Your task to perform on an android device: Add "asus rog" to the cart on bestbuy.com, then select checkout. Image 0: 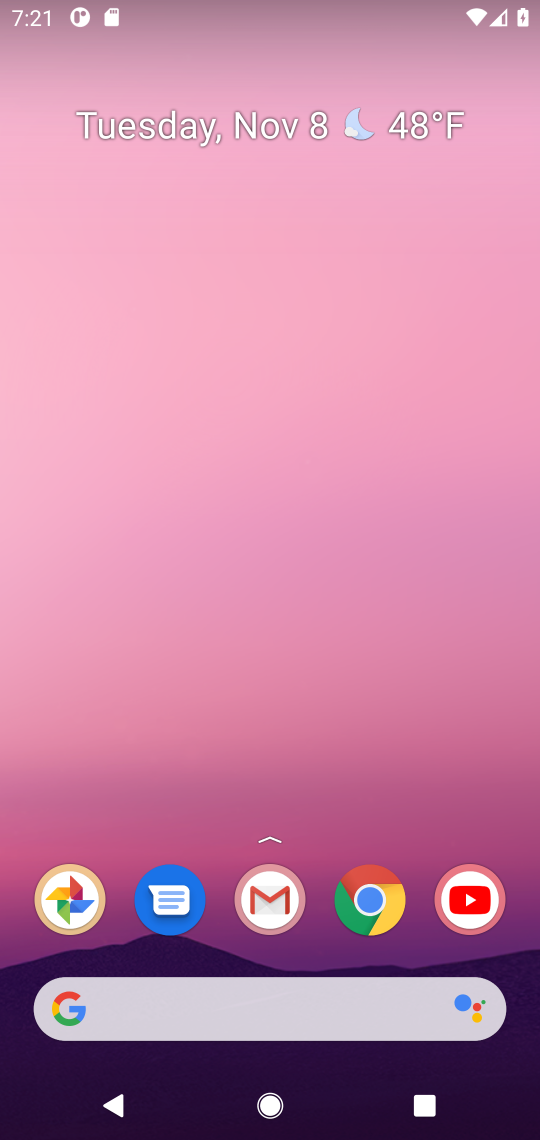
Step 0: drag from (221, 991) to (229, 286)
Your task to perform on an android device: Add "asus rog" to the cart on bestbuy.com, then select checkout. Image 1: 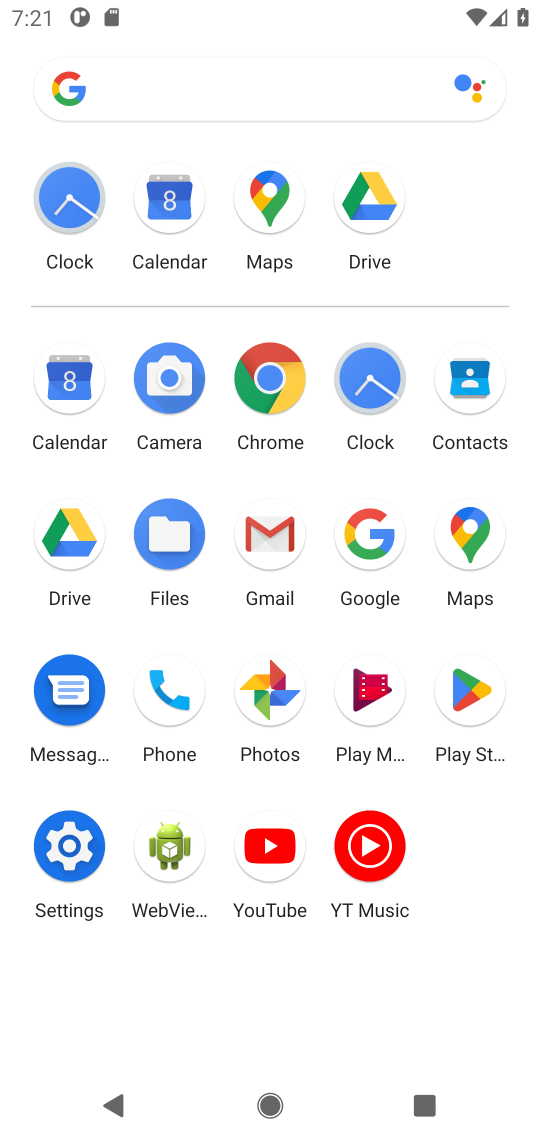
Step 1: click (360, 509)
Your task to perform on an android device: Add "asus rog" to the cart on bestbuy.com, then select checkout. Image 2: 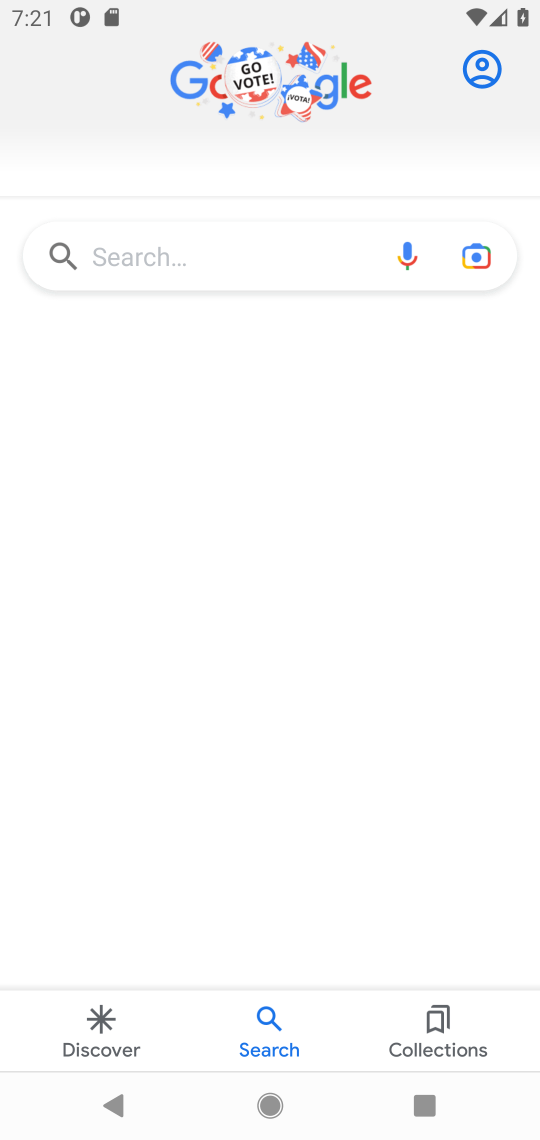
Step 2: click (182, 250)
Your task to perform on an android device: Add "asus rog" to the cart on bestbuy.com, then select checkout. Image 3: 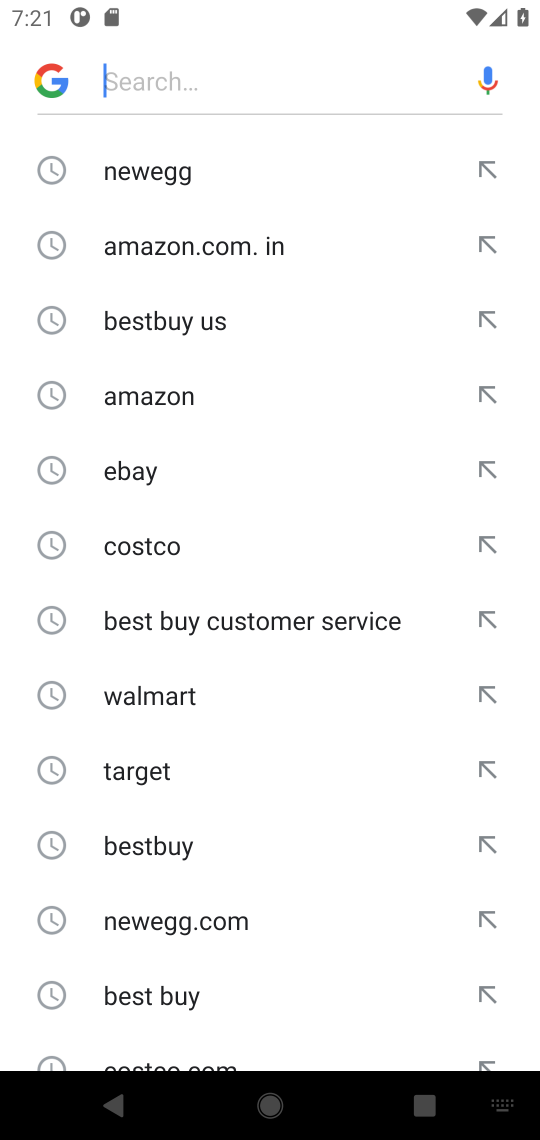
Step 3: type "bestbuy "
Your task to perform on an android device: Add "asus rog" to the cart on bestbuy.com, then select checkout. Image 4: 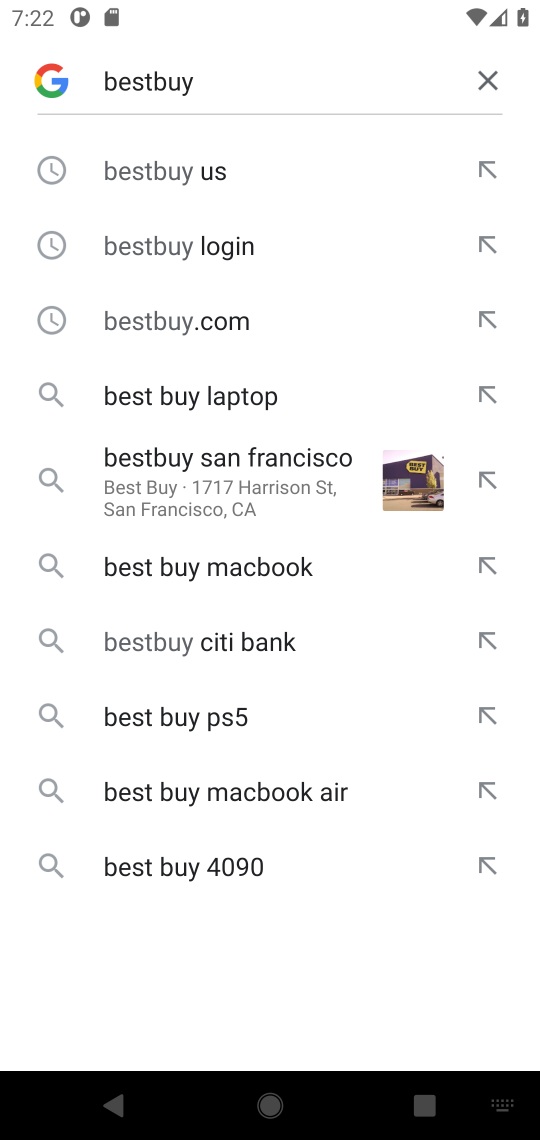
Step 4: click (86, 168)
Your task to perform on an android device: Add "asus rog" to the cart on bestbuy.com, then select checkout. Image 5: 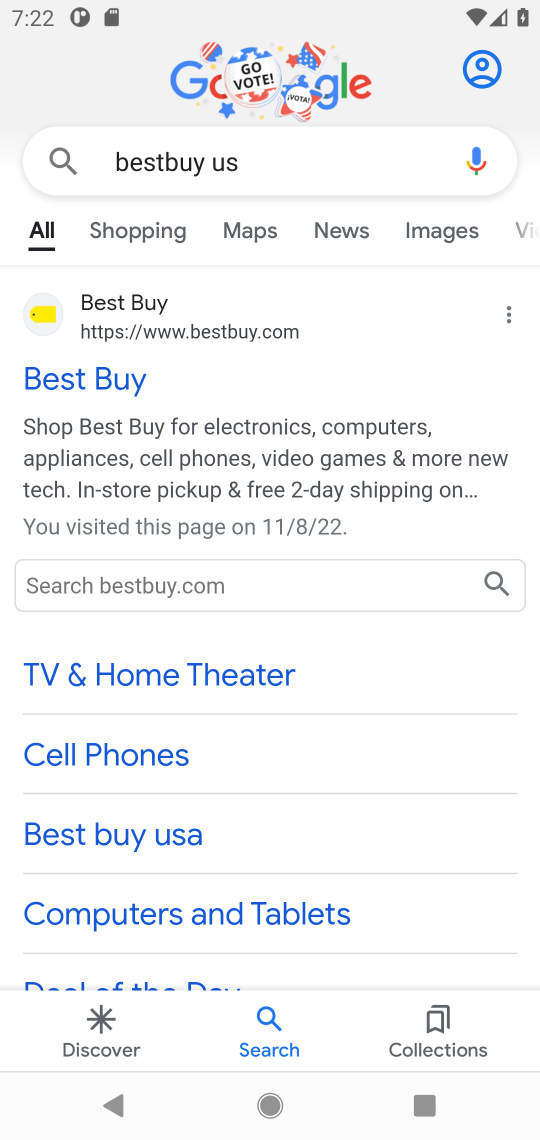
Step 5: click (45, 313)
Your task to perform on an android device: Add "asus rog" to the cart on bestbuy.com, then select checkout. Image 6: 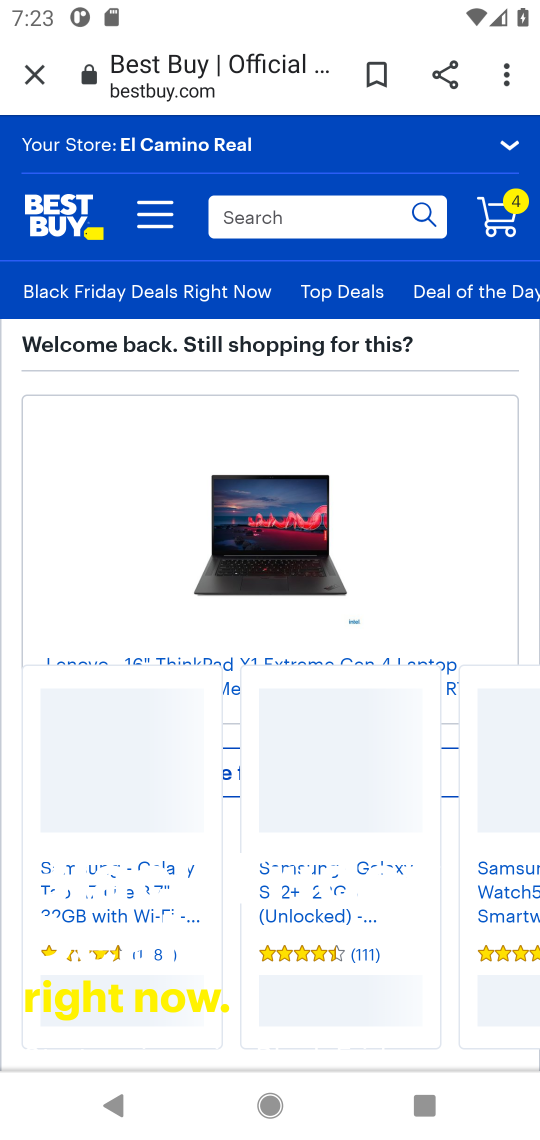
Step 6: click (286, 217)
Your task to perform on an android device: Add "asus rog" to the cart on bestbuy.com, then select checkout. Image 7: 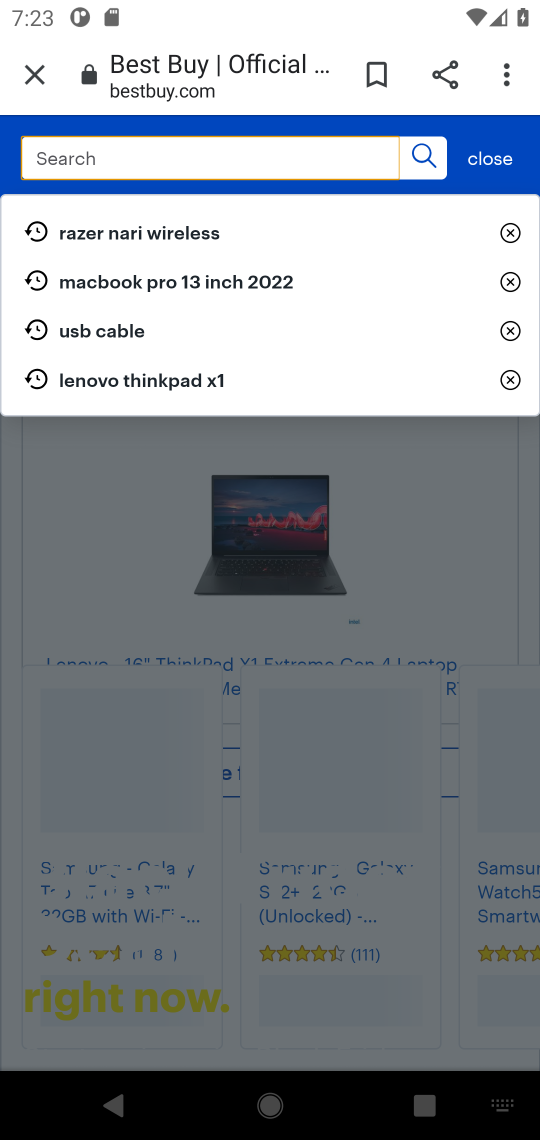
Step 7: click (336, 206)
Your task to perform on an android device: Add "asus rog" to the cart on bestbuy.com, then select checkout. Image 8: 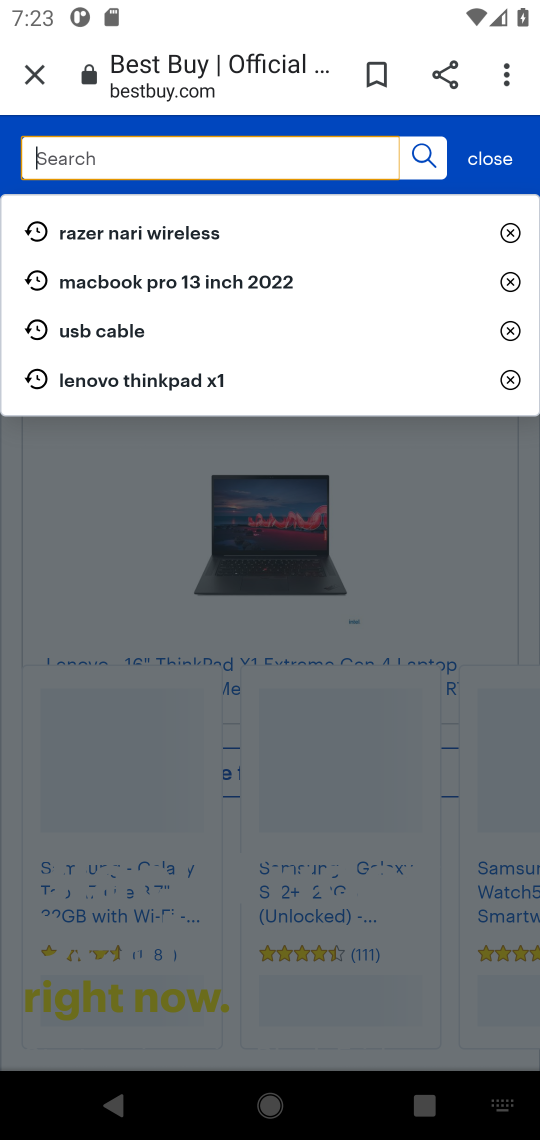
Step 8: type ""asus rog "
Your task to perform on an android device: Add "asus rog" to the cart on bestbuy.com, then select checkout. Image 9: 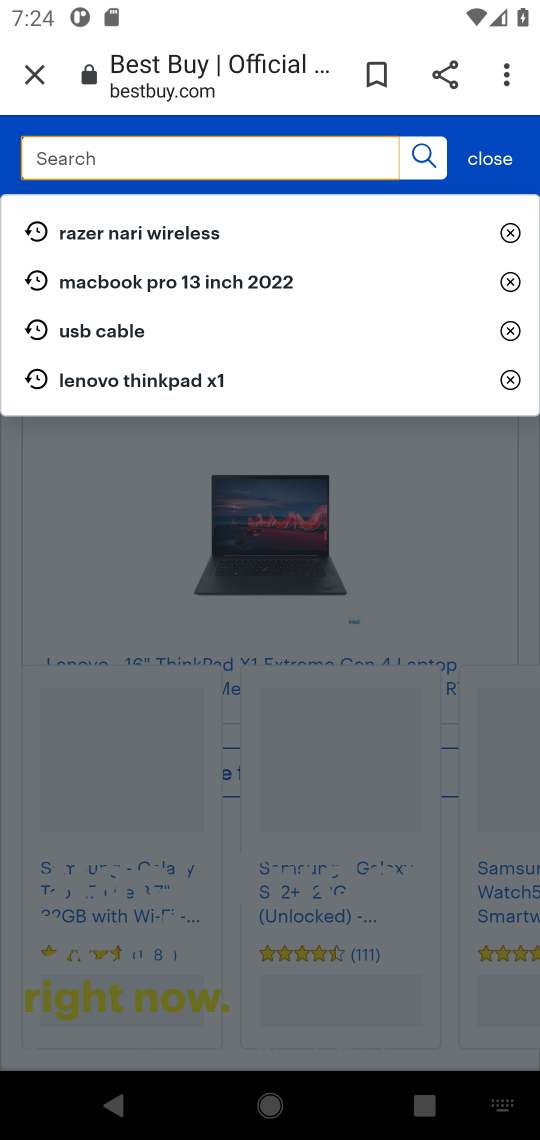
Step 9: click (158, 153)
Your task to perform on an android device: Add "asus rog" to the cart on bestbuy.com, then select checkout. Image 10: 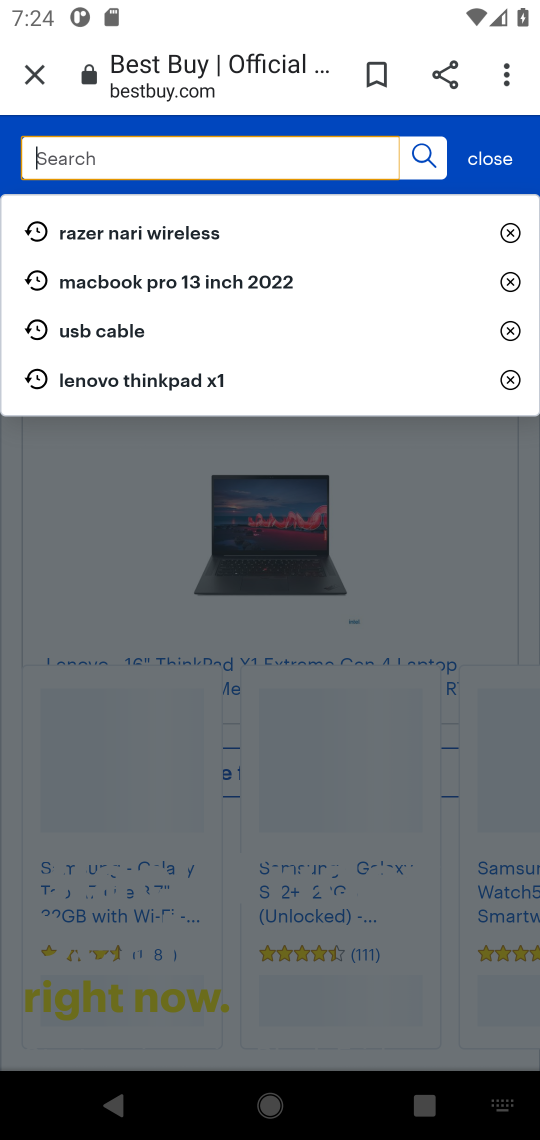
Step 10: type "asus "
Your task to perform on an android device: Add "asus rog" to the cart on bestbuy.com, then select checkout. Image 11: 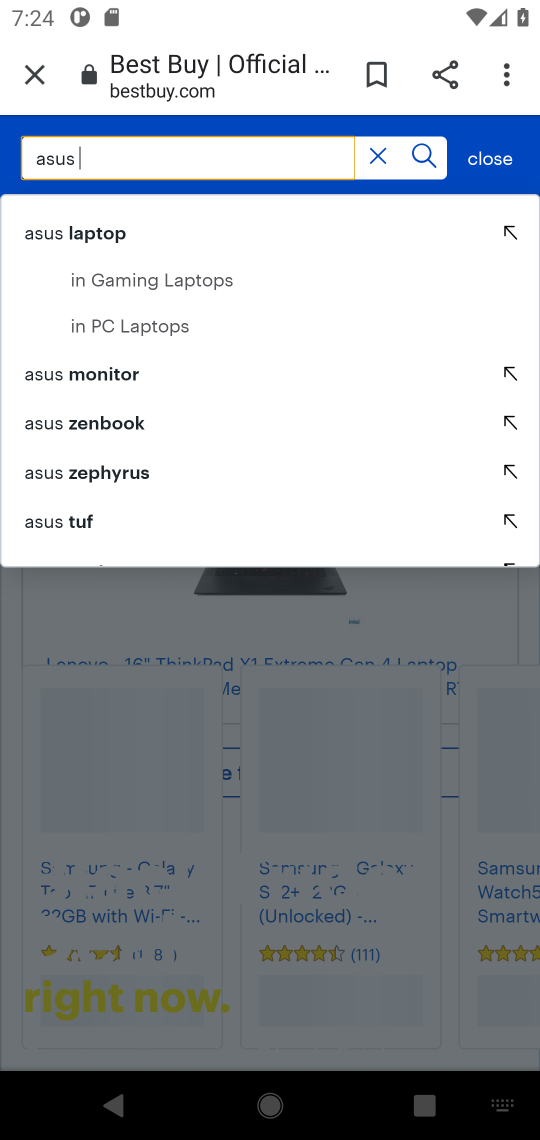
Step 11: click (409, 148)
Your task to perform on an android device: Add "asus rog" to the cart on bestbuy.com, then select checkout. Image 12: 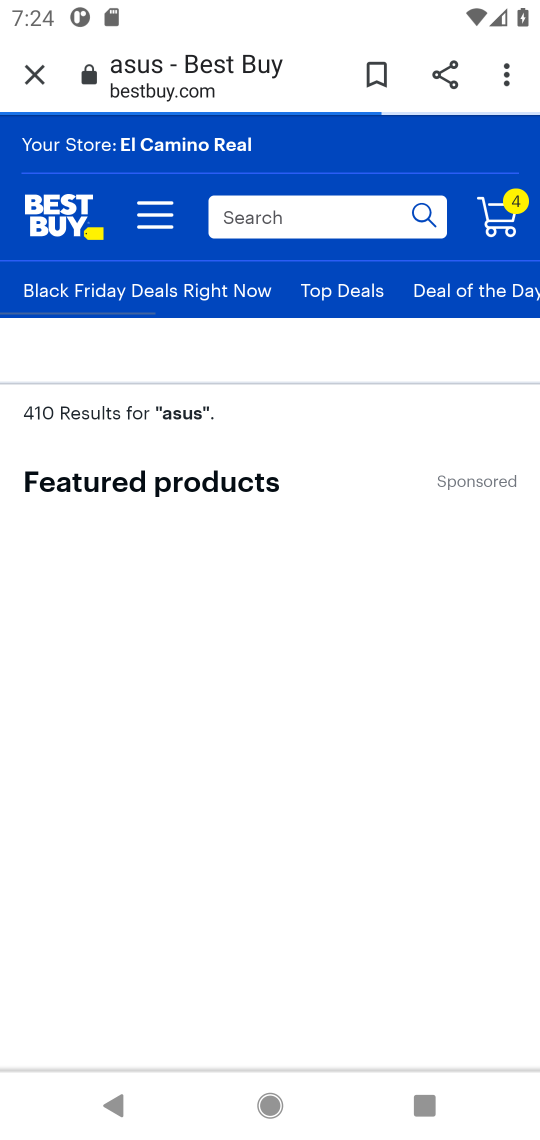
Step 12: click (420, 154)
Your task to perform on an android device: Add "asus rog" to the cart on bestbuy.com, then select checkout. Image 13: 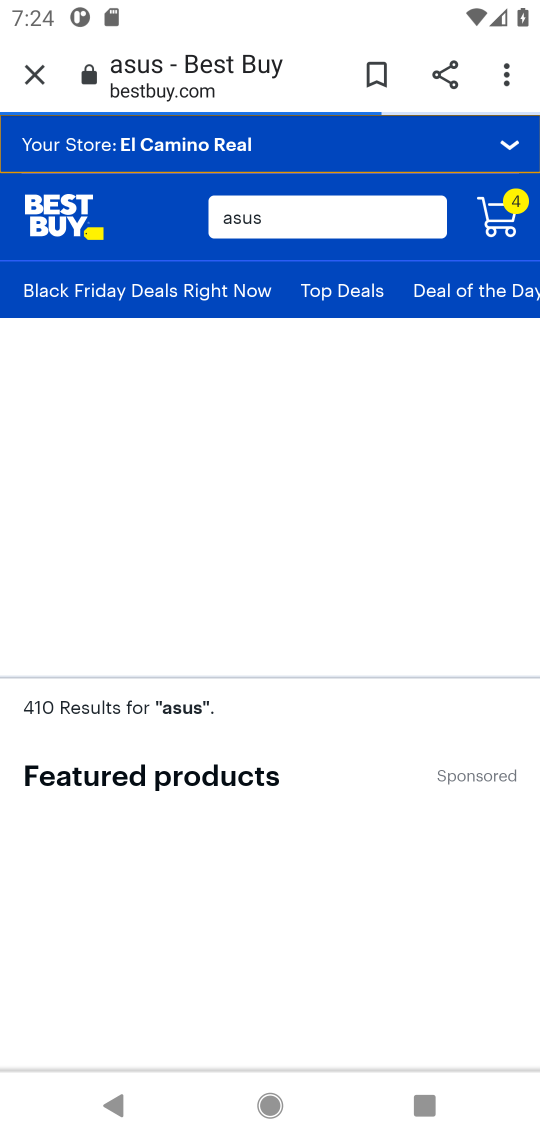
Step 13: drag from (360, 955) to (392, 558)
Your task to perform on an android device: Add "asus rog" to the cart on bestbuy.com, then select checkout. Image 14: 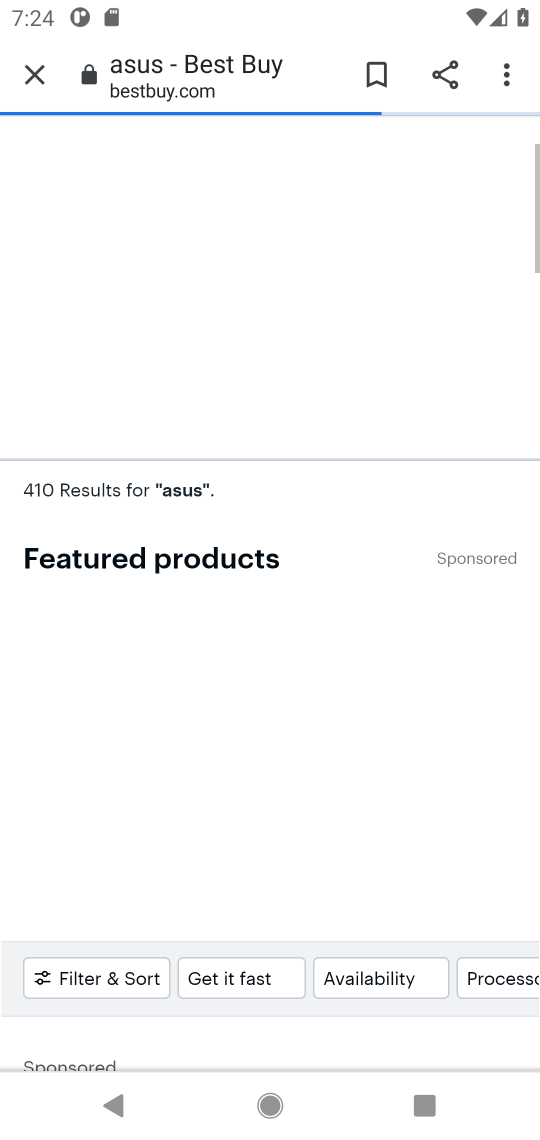
Step 14: drag from (400, 462) to (421, 344)
Your task to perform on an android device: Add "asus rog" to the cart on bestbuy.com, then select checkout. Image 15: 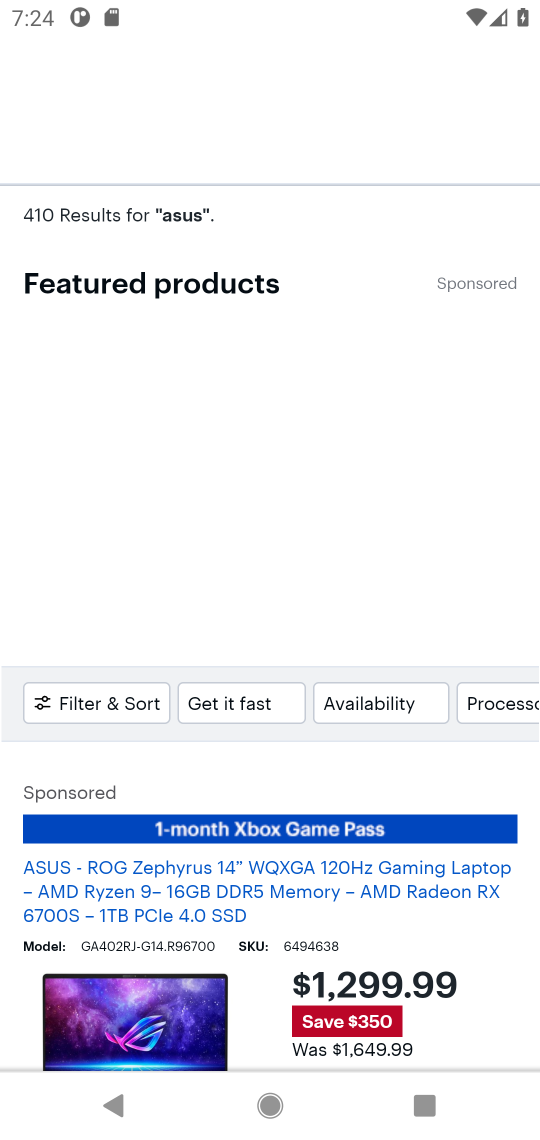
Step 15: drag from (377, 723) to (404, 208)
Your task to perform on an android device: Add "asus rog" to the cart on bestbuy.com, then select checkout. Image 16: 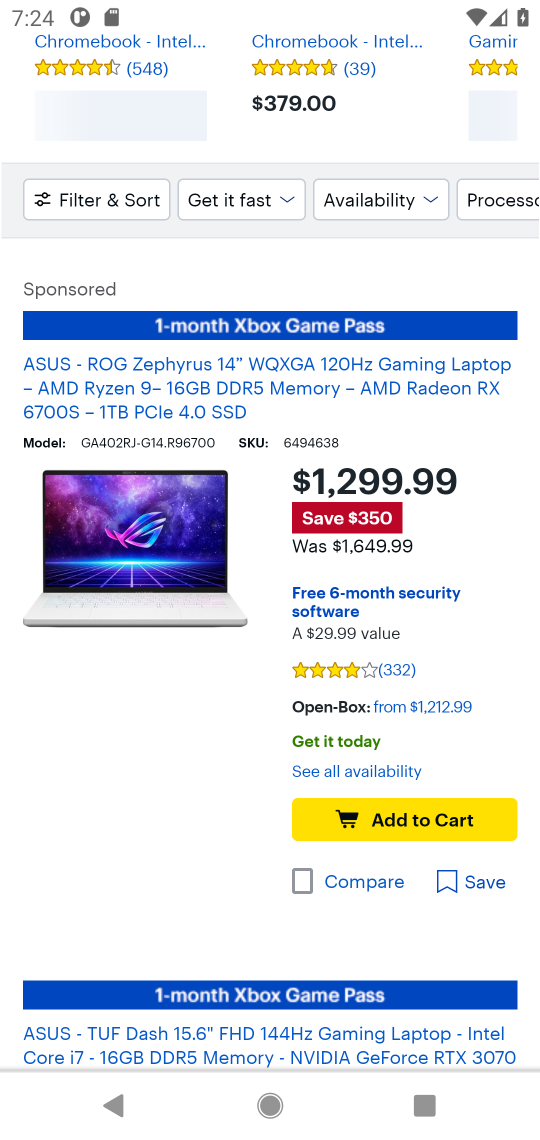
Step 16: click (374, 663)
Your task to perform on an android device: Add "asus rog" to the cart on bestbuy.com, then select checkout. Image 17: 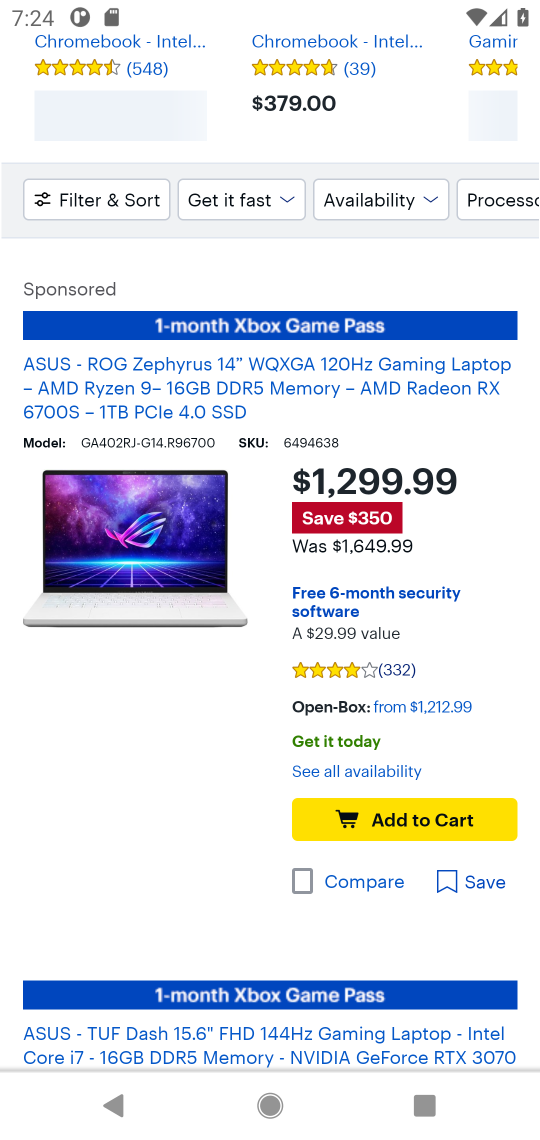
Step 17: click (374, 806)
Your task to perform on an android device: Add "asus rog" to the cart on bestbuy.com, then select checkout. Image 18: 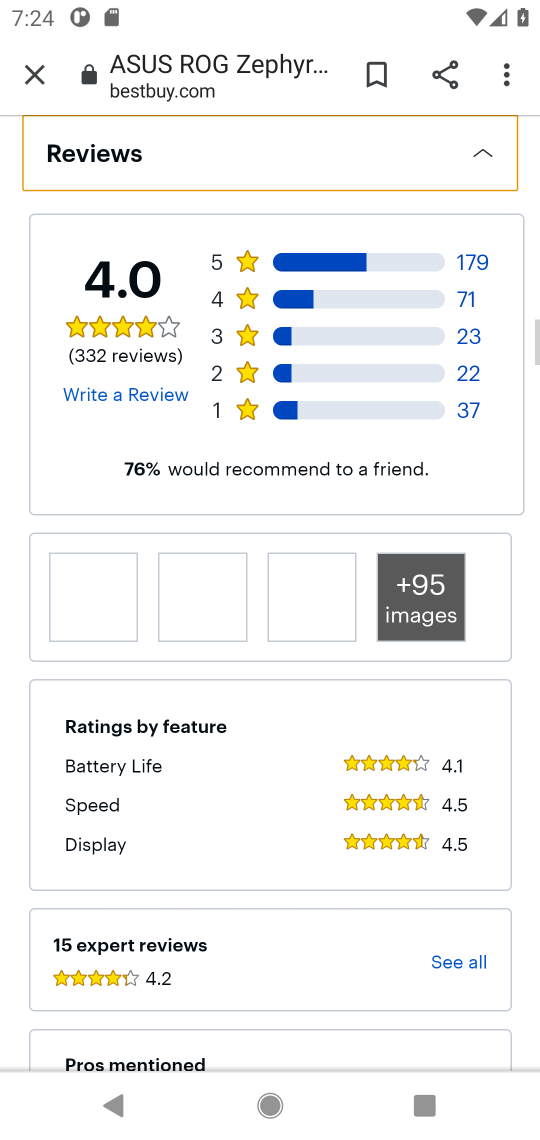
Step 18: drag from (312, 954) to (357, 487)
Your task to perform on an android device: Add "asus rog" to the cart on bestbuy.com, then select checkout. Image 19: 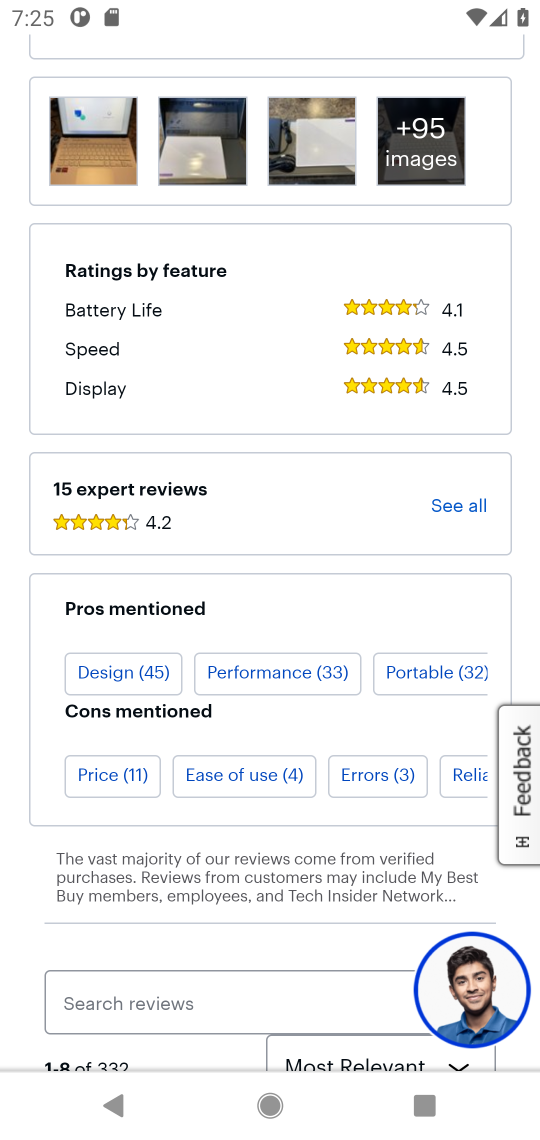
Step 19: drag from (219, 916) to (385, 104)
Your task to perform on an android device: Add "asus rog" to the cart on bestbuy.com, then select checkout. Image 20: 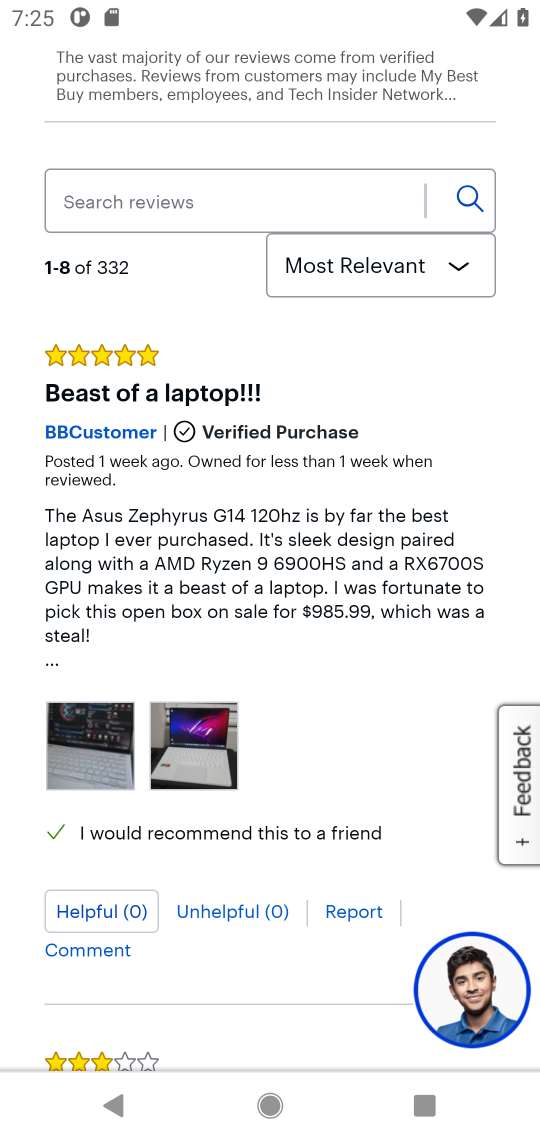
Step 20: drag from (364, 159) to (271, 930)
Your task to perform on an android device: Add "asus rog" to the cart on bestbuy.com, then select checkout. Image 21: 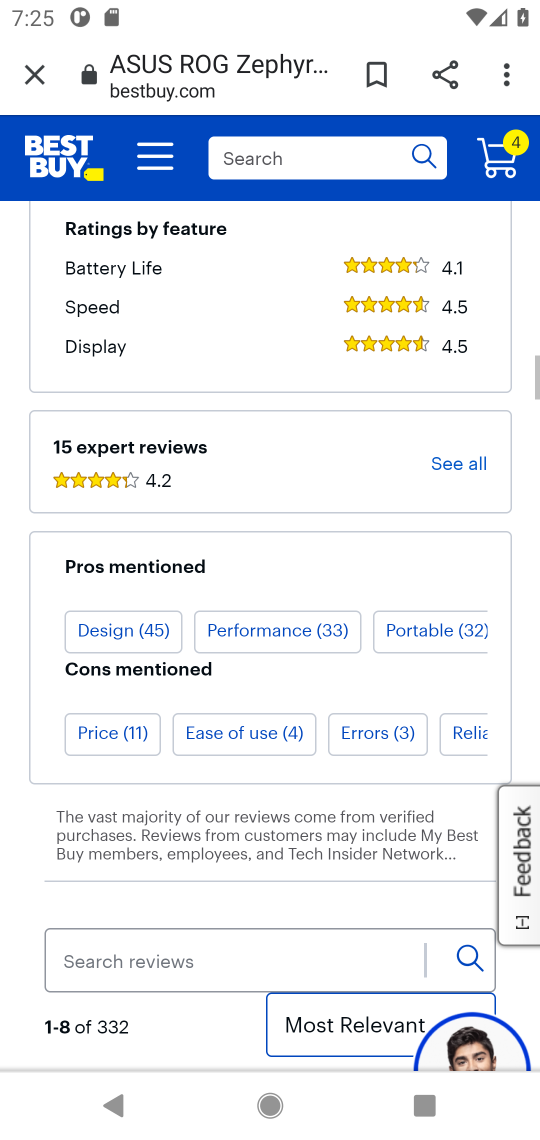
Step 21: drag from (354, 330) to (318, 850)
Your task to perform on an android device: Add "asus rog" to the cart on bestbuy.com, then select checkout. Image 22: 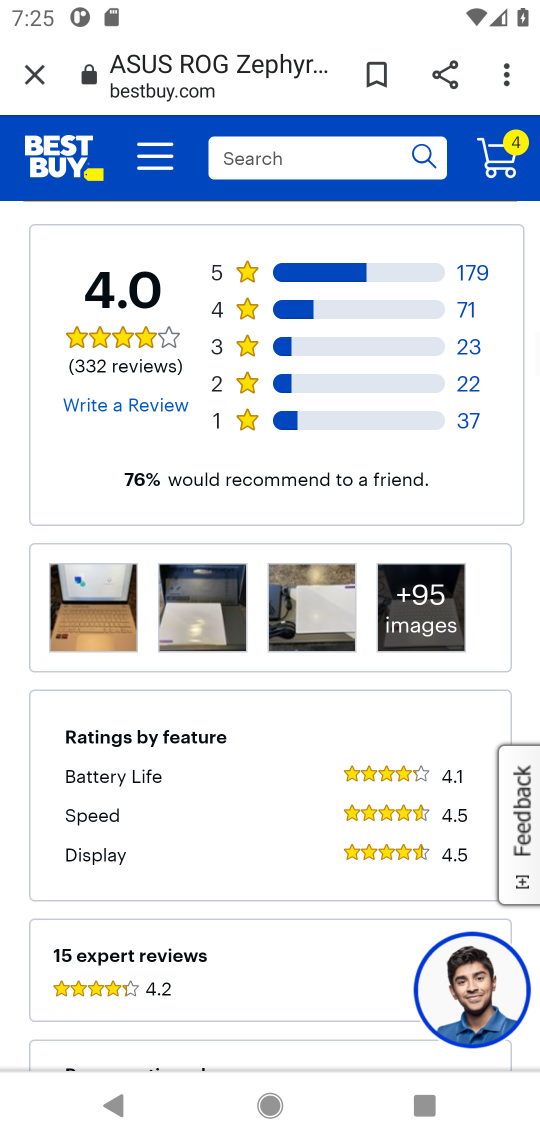
Step 22: drag from (379, 398) to (336, 829)
Your task to perform on an android device: Add "asus rog" to the cart on bestbuy.com, then select checkout. Image 23: 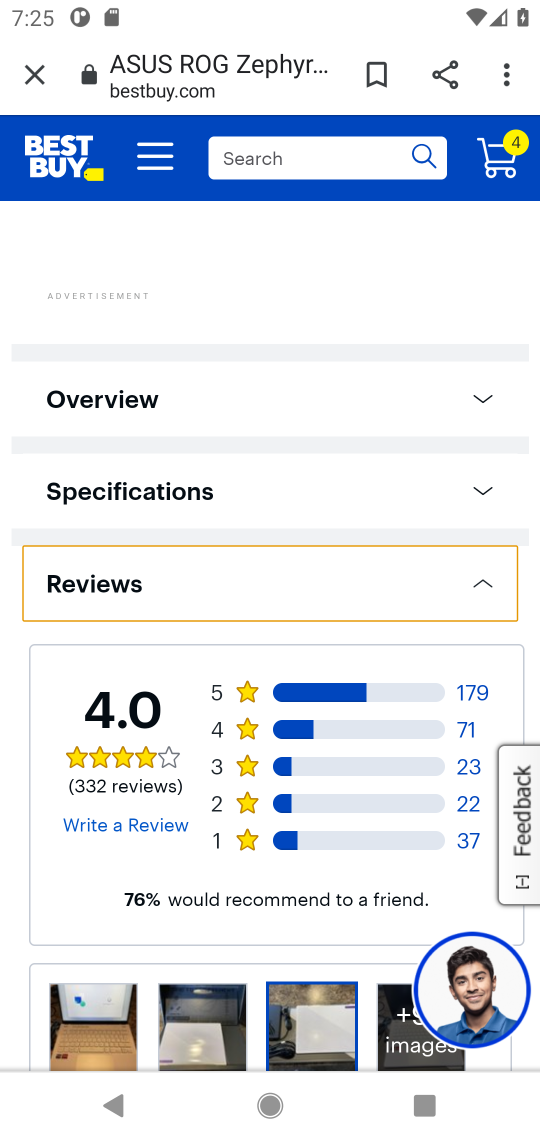
Step 23: click (314, 1085)
Your task to perform on an android device: Add "asus rog" to the cart on bestbuy.com, then select checkout. Image 24: 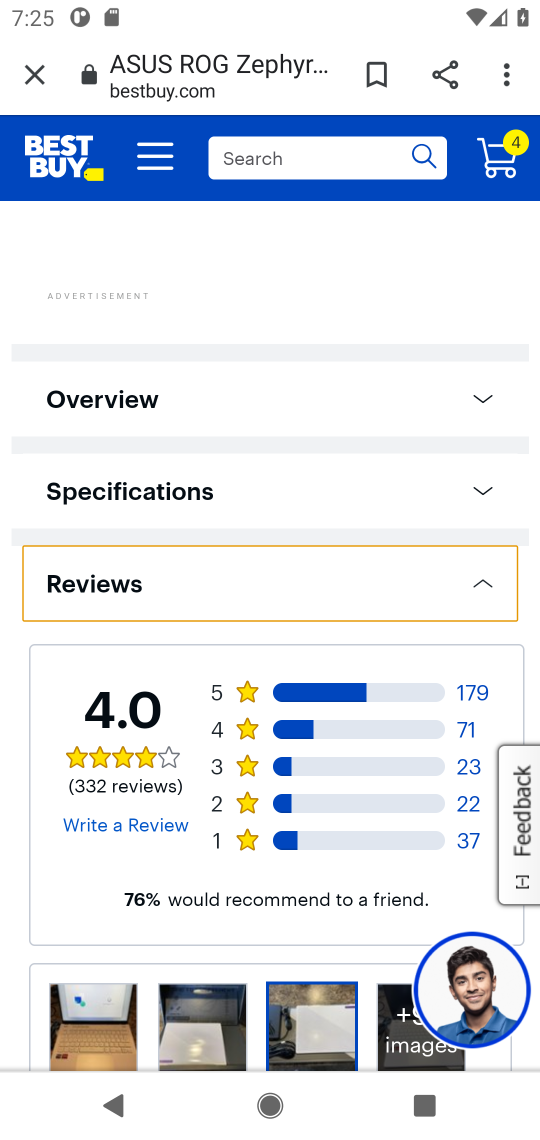
Step 24: click (283, 904)
Your task to perform on an android device: Add "asus rog" to the cart on bestbuy.com, then select checkout. Image 25: 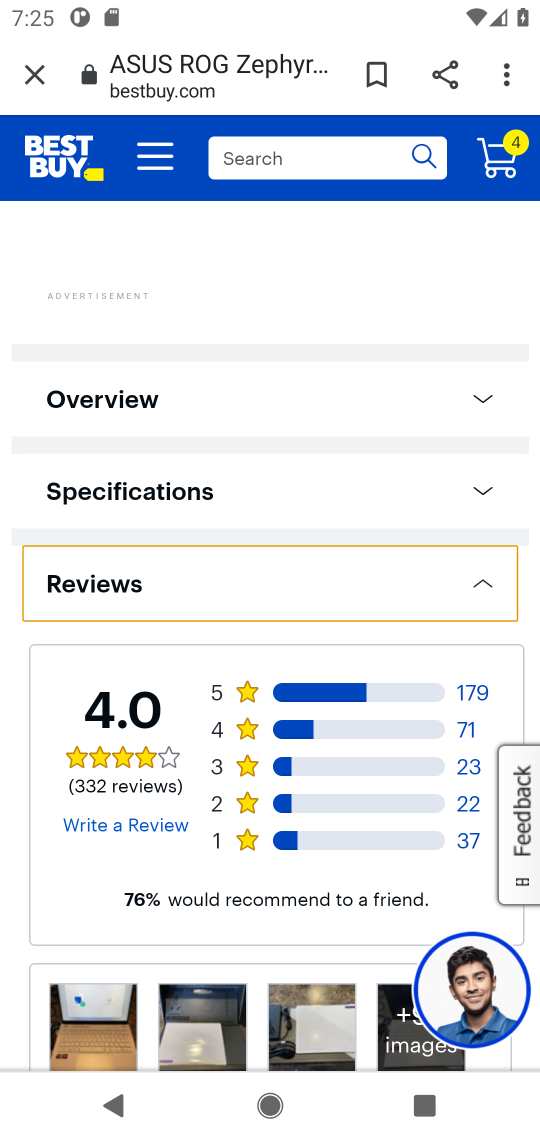
Step 25: click (330, 917)
Your task to perform on an android device: Add "asus rog" to the cart on bestbuy.com, then select checkout. Image 26: 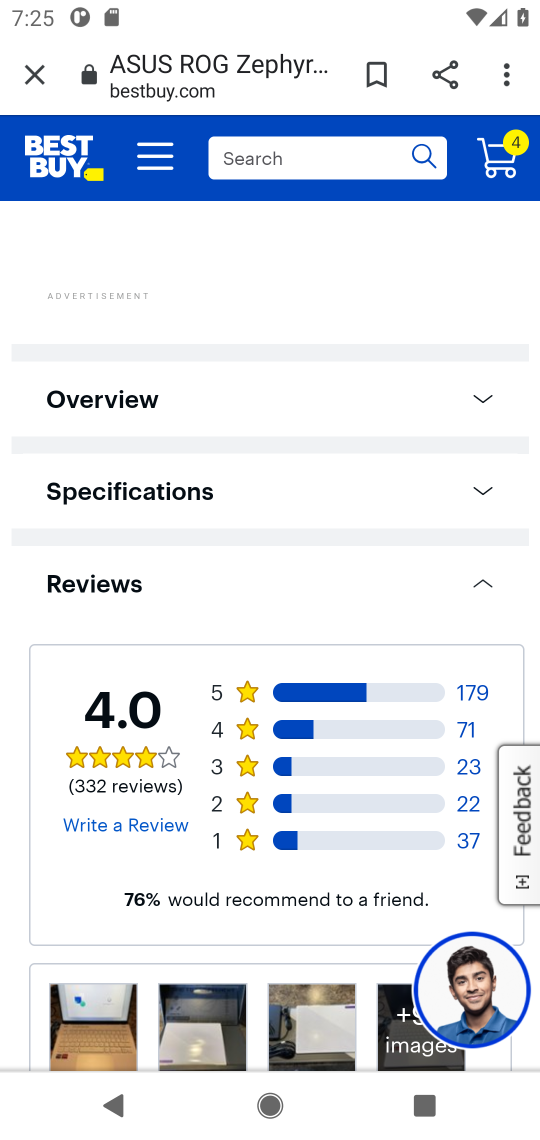
Step 26: click (346, 937)
Your task to perform on an android device: Add "asus rog" to the cart on bestbuy.com, then select checkout. Image 27: 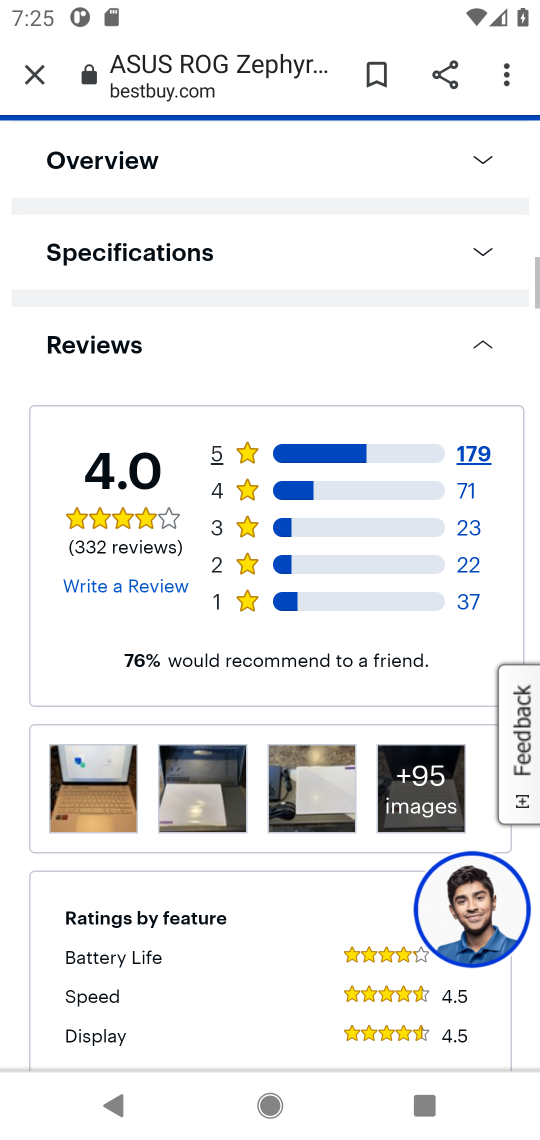
Step 27: click (310, 738)
Your task to perform on an android device: Add "asus rog" to the cart on bestbuy.com, then select checkout. Image 28: 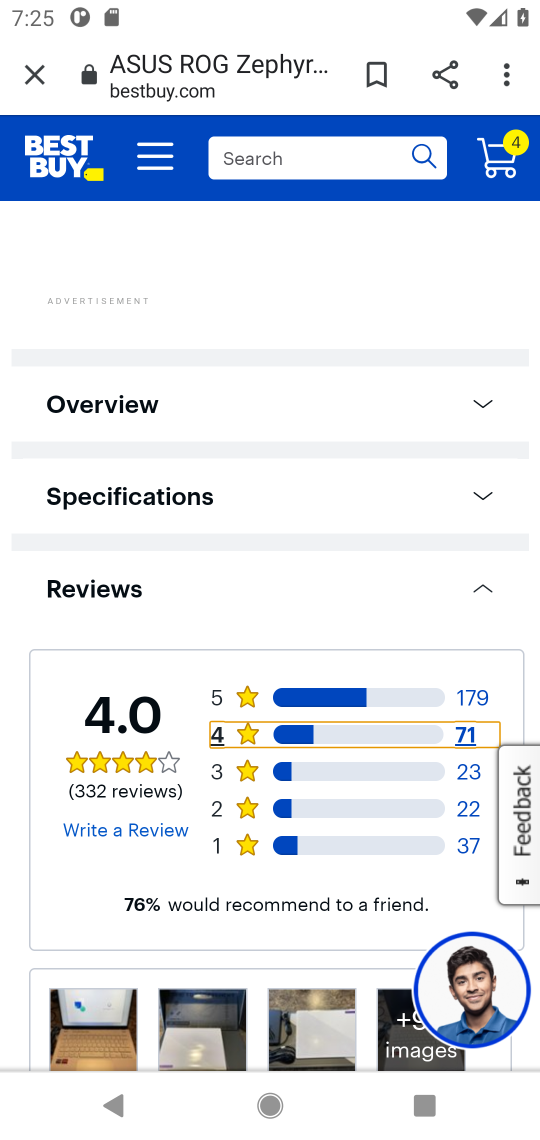
Step 28: drag from (296, 150) to (318, 863)
Your task to perform on an android device: Add "asus rog" to the cart on bestbuy.com, then select checkout. Image 29: 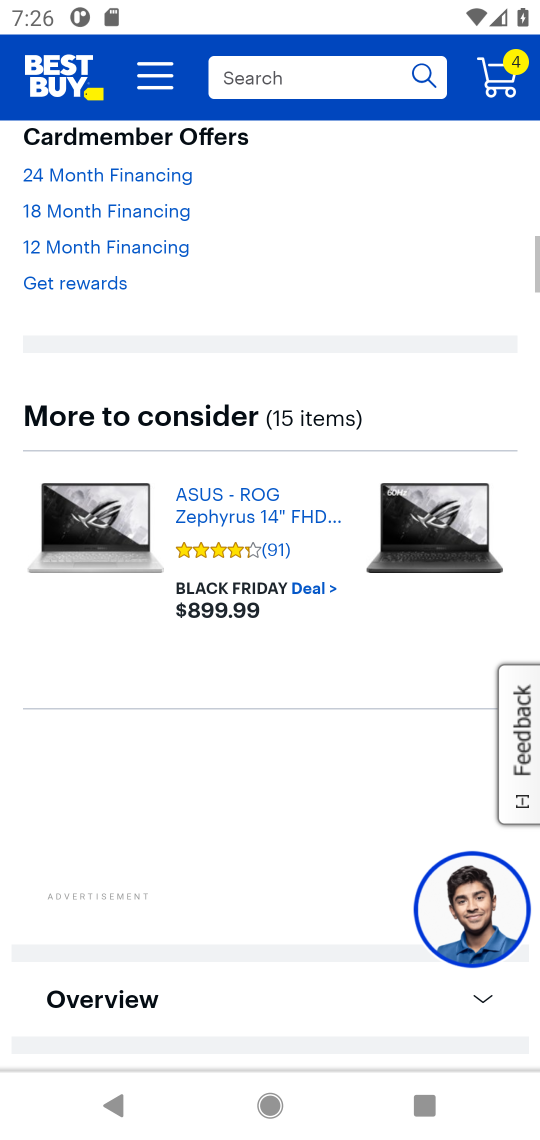
Step 29: drag from (318, 431) to (310, 838)
Your task to perform on an android device: Add "asus rog" to the cart on bestbuy.com, then select checkout. Image 30: 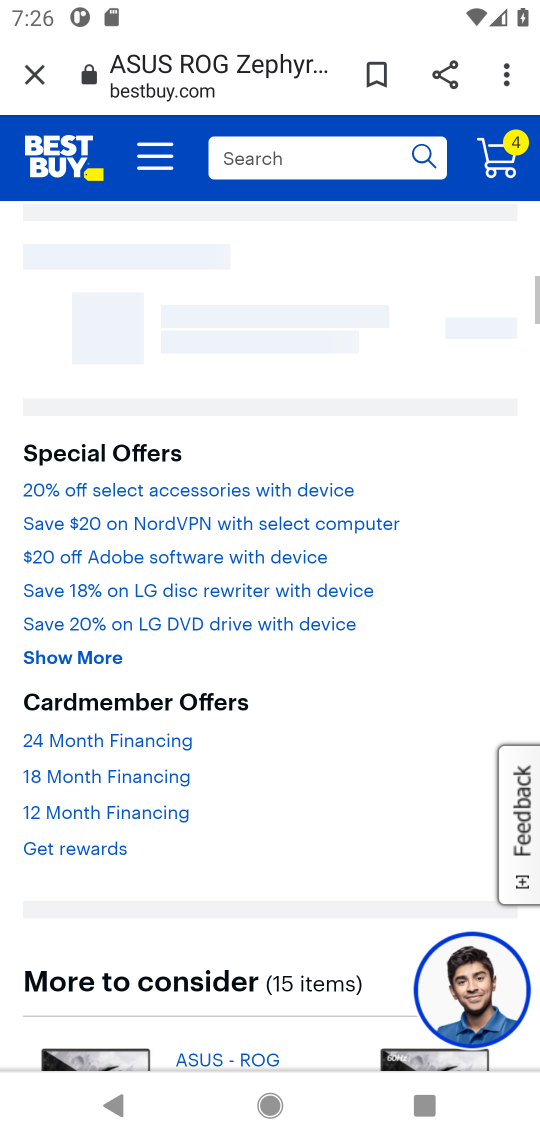
Step 30: drag from (275, 561) to (311, 765)
Your task to perform on an android device: Add "asus rog" to the cart on bestbuy.com, then select checkout. Image 31: 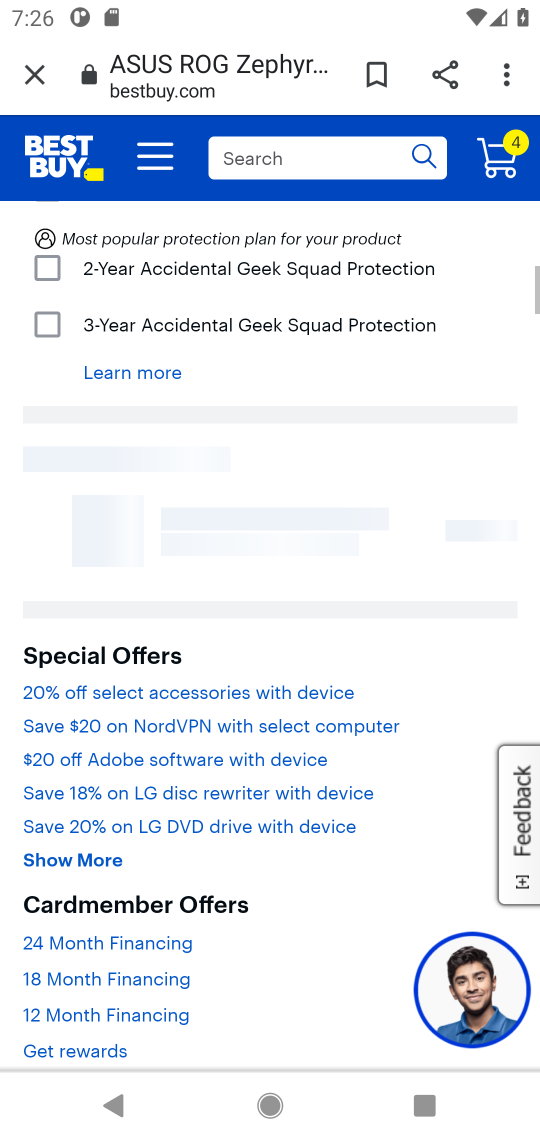
Step 31: drag from (337, 813) to (335, 908)
Your task to perform on an android device: Add "asus rog" to the cart on bestbuy.com, then select checkout. Image 32: 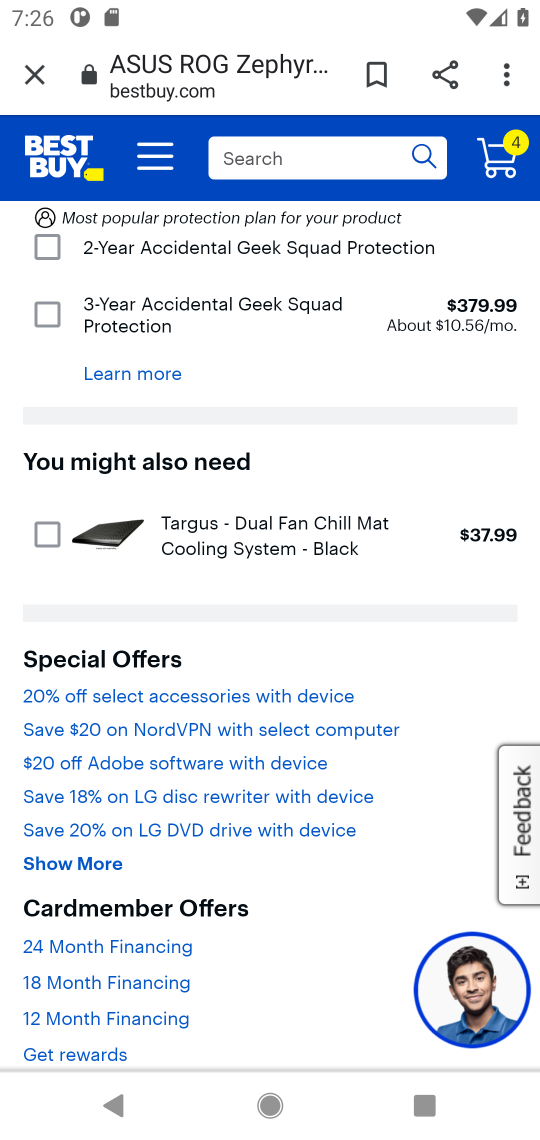
Step 32: drag from (281, 675) to (277, 861)
Your task to perform on an android device: Add "asus rog" to the cart on bestbuy.com, then select checkout. Image 33: 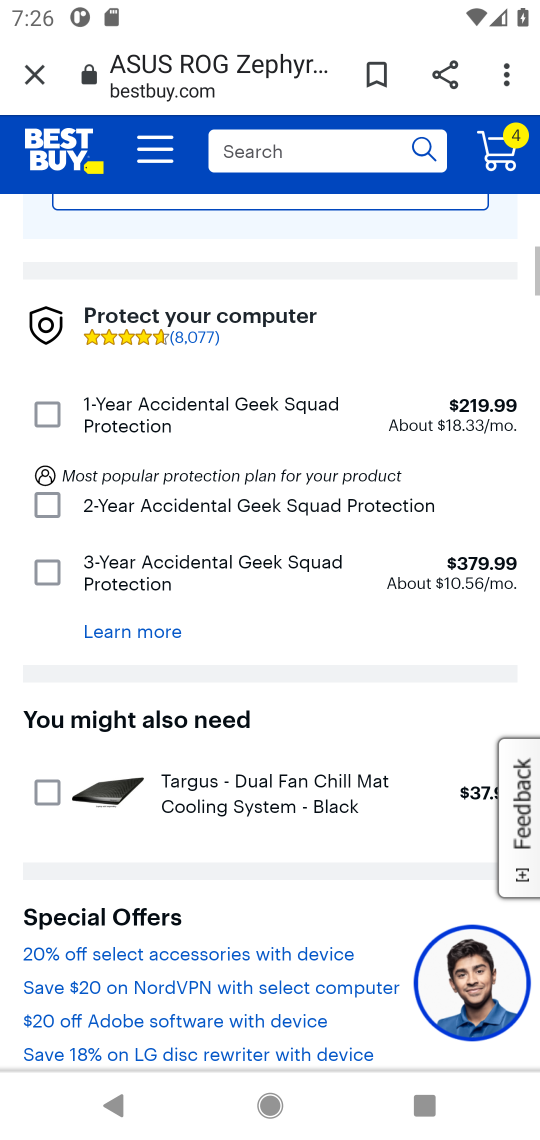
Step 33: click (173, 510)
Your task to perform on an android device: Add "asus rog" to the cart on bestbuy.com, then select checkout. Image 34: 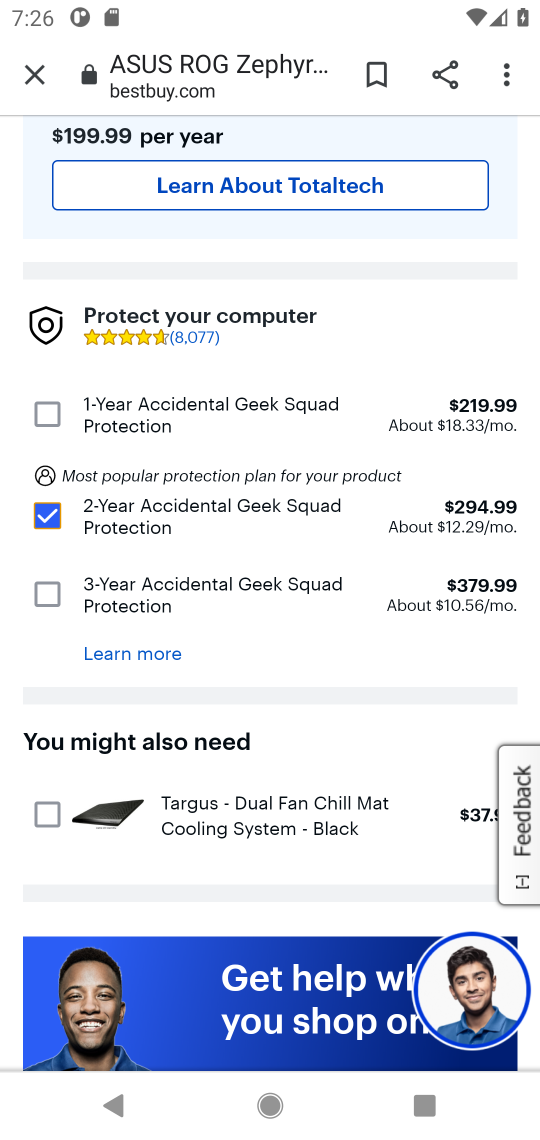
Step 34: drag from (353, 300) to (350, 891)
Your task to perform on an android device: Add "asus rog" to the cart on bestbuy.com, then select checkout. Image 35: 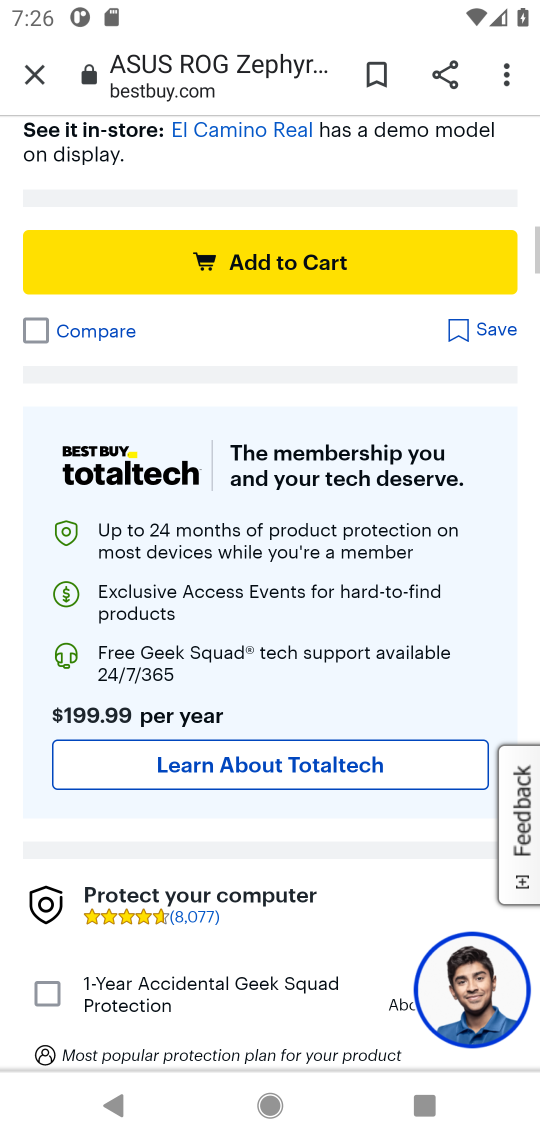
Step 35: drag from (351, 340) to (284, 957)
Your task to perform on an android device: Add "asus rog" to the cart on bestbuy.com, then select checkout. Image 36: 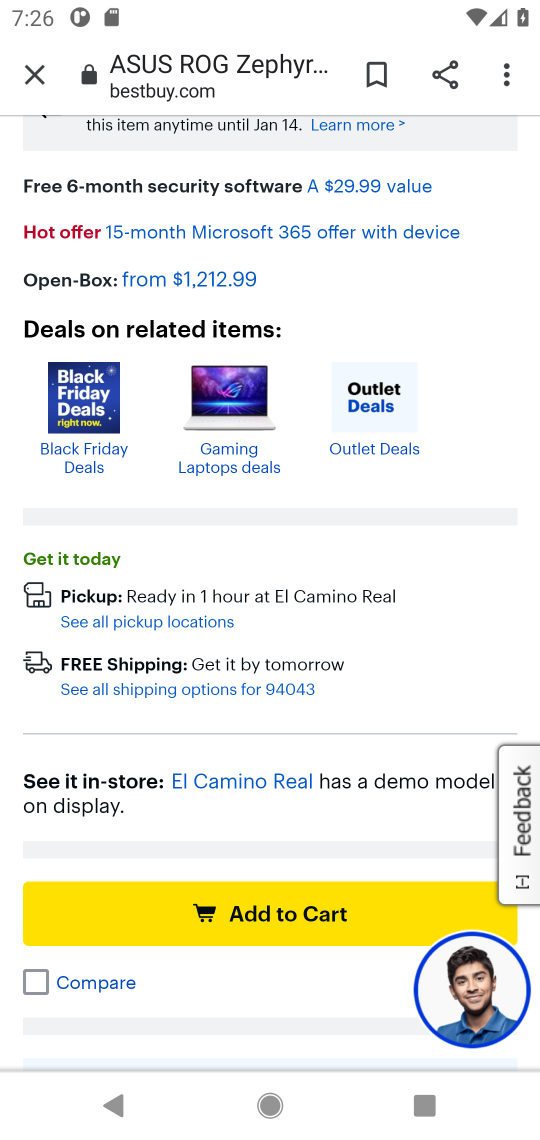
Step 36: click (292, 869)
Your task to perform on an android device: Add "asus rog" to the cart on bestbuy.com, then select checkout. Image 37: 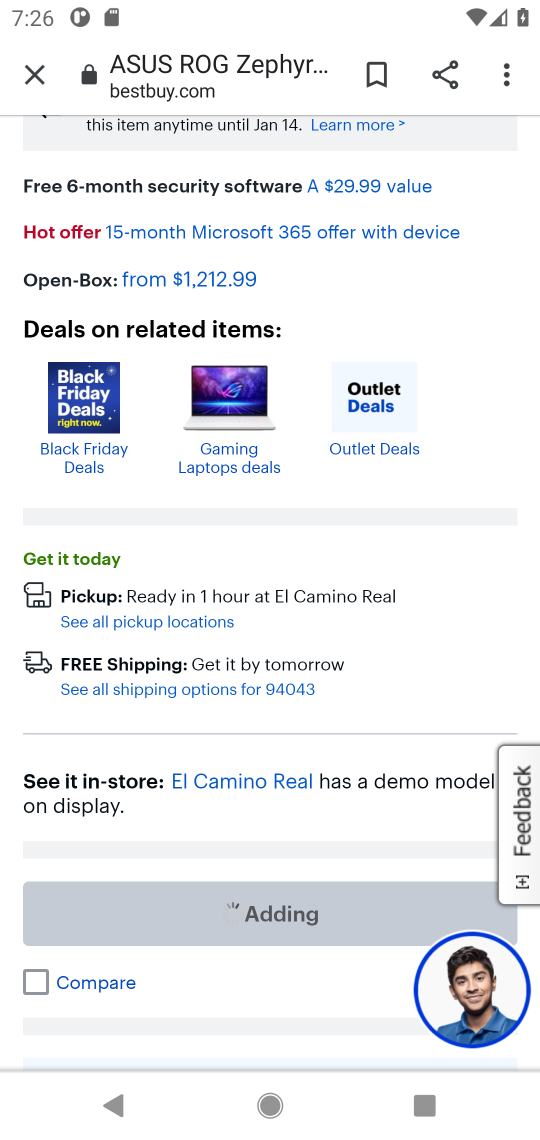
Step 37: task complete